Your task to perform on an android device: empty trash in google photos Image 0: 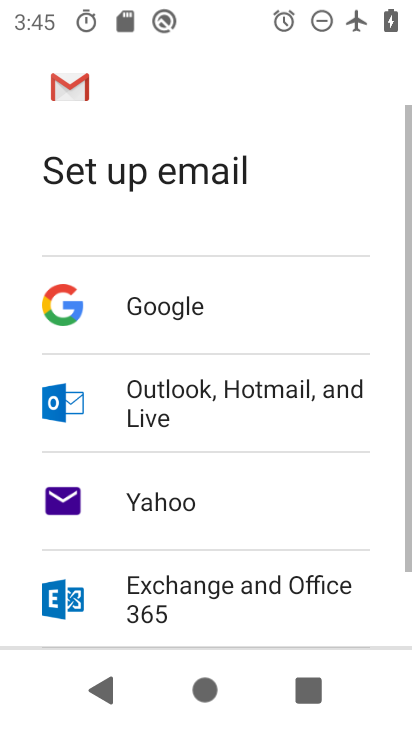
Step 0: press home button
Your task to perform on an android device: empty trash in google photos Image 1: 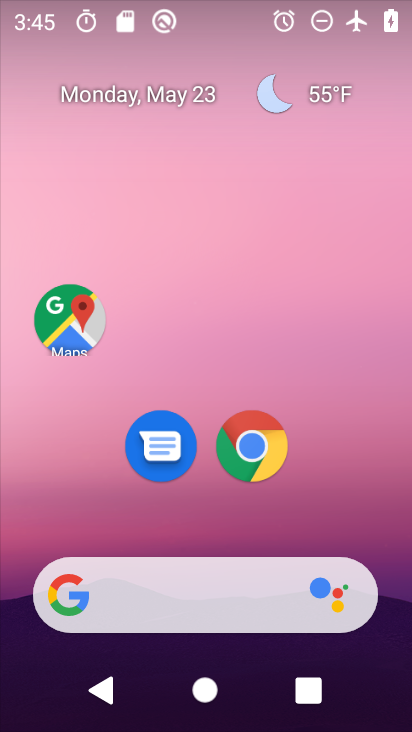
Step 1: drag from (213, 523) to (208, 160)
Your task to perform on an android device: empty trash in google photos Image 2: 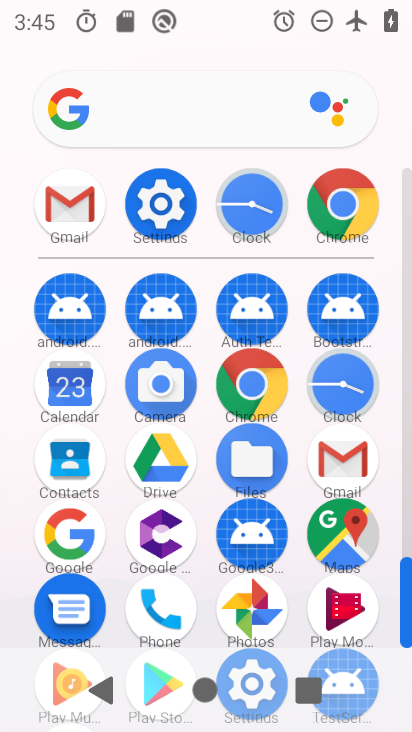
Step 2: click (265, 596)
Your task to perform on an android device: empty trash in google photos Image 3: 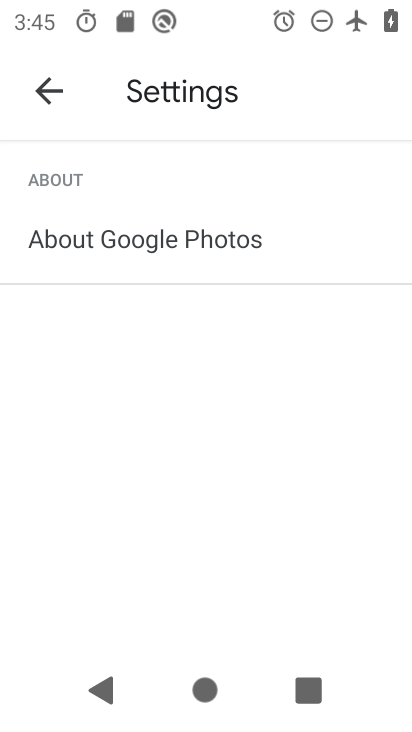
Step 3: click (56, 91)
Your task to perform on an android device: empty trash in google photos Image 4: 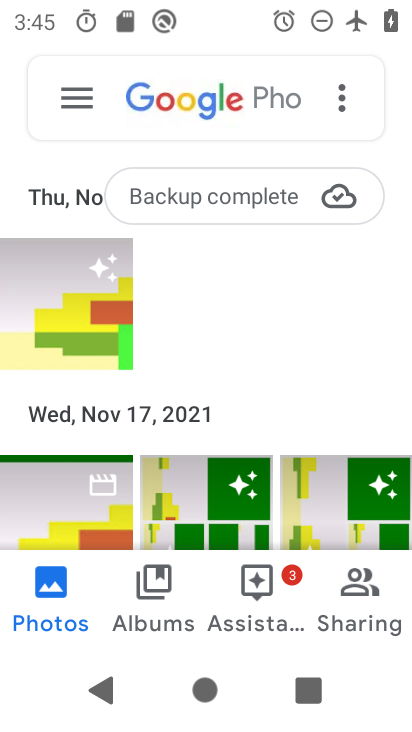
Step 4: click (58, 90)
Your task to perform on an android device: empty trash in google photos Image 5: 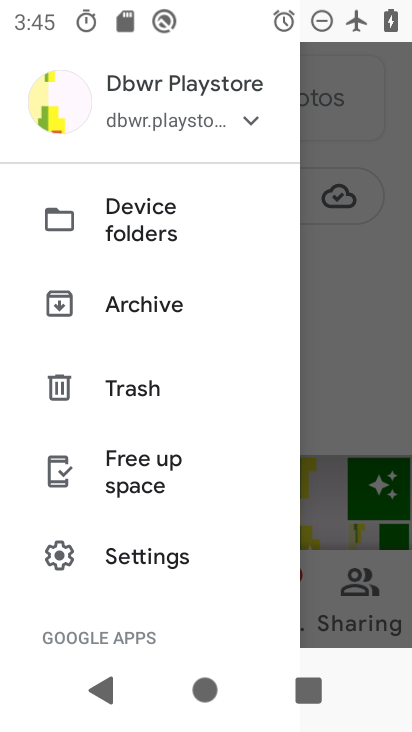
Step 5: click (141, 397)
Your task to perform on an android device: empty trash in google photos Image 6: 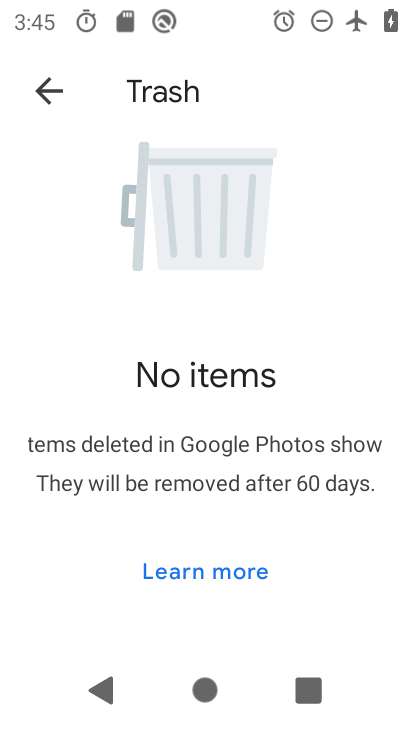
Step 6: task complete